Your task to perform on an android device: Open the map Image 0: 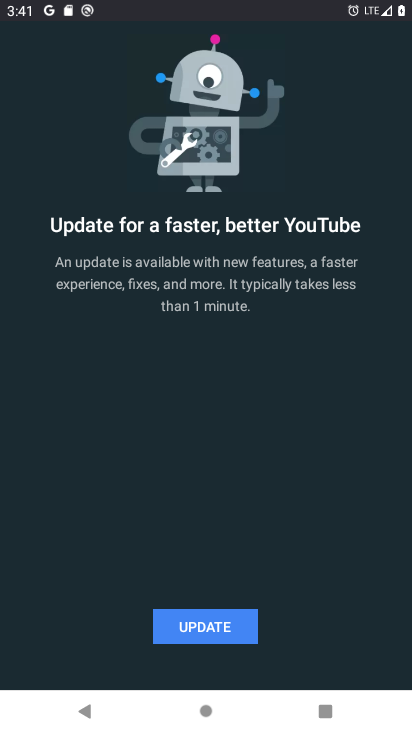
Step 0: press home button
Your task to perform on an android device: Open the map Image 1: 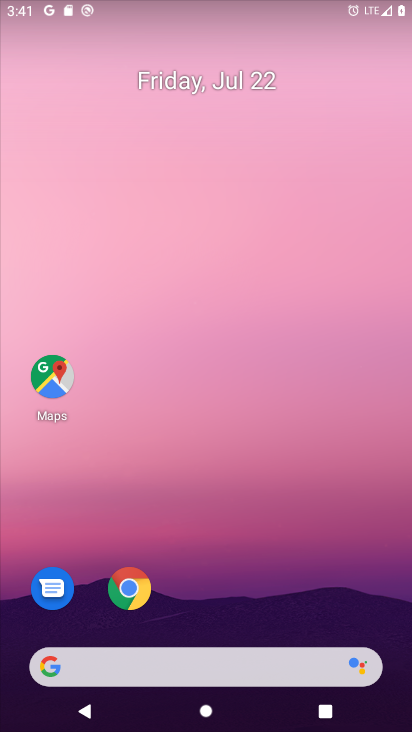
Step 1: drag from (240, 582) to (316, 75)
Your task to perform on an android device: Open the map Image 2: 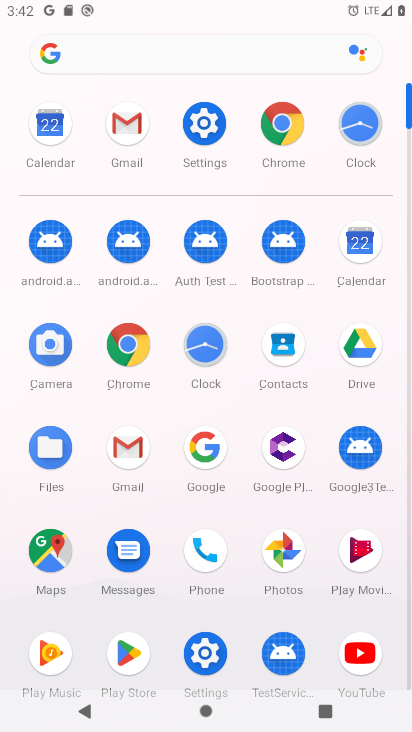
Step 2: click (58, 549)
Your task to perform on an android device: Open the map Image 3: 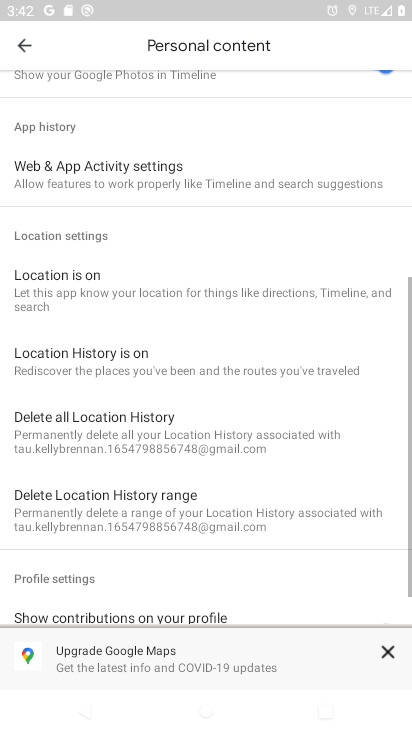
Step 3: click (24, 44)
Your task to perform on an android device: Open the map Image 4: 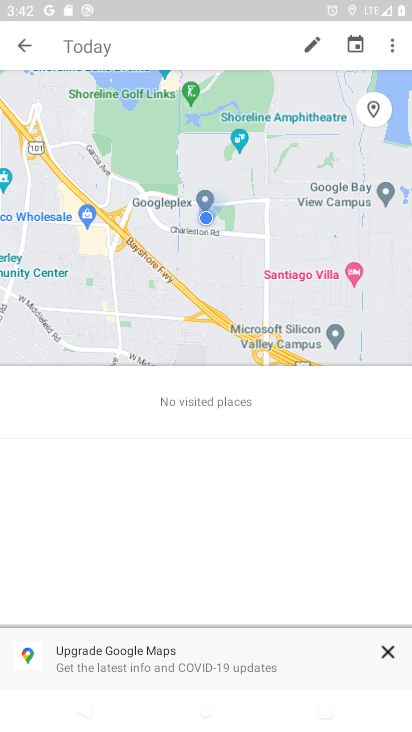
Step 4: click (20, 43)
Your task to perform on an android device: Open the map Image 5: 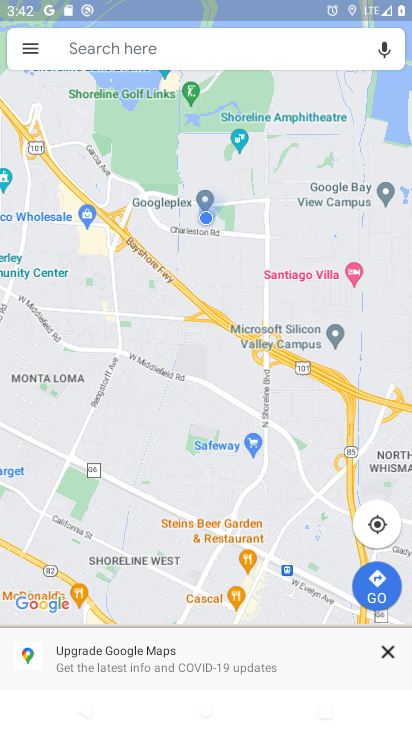
Step 5: task complete